Your task to perform on an android device: toggle improve location accuracy Image 0: 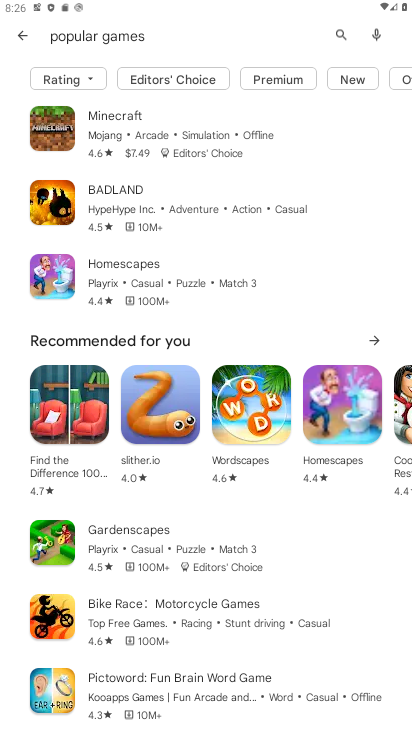
Step 0: press home button
Your task to perform on an android device: toggle improve location accuracy Image 1: 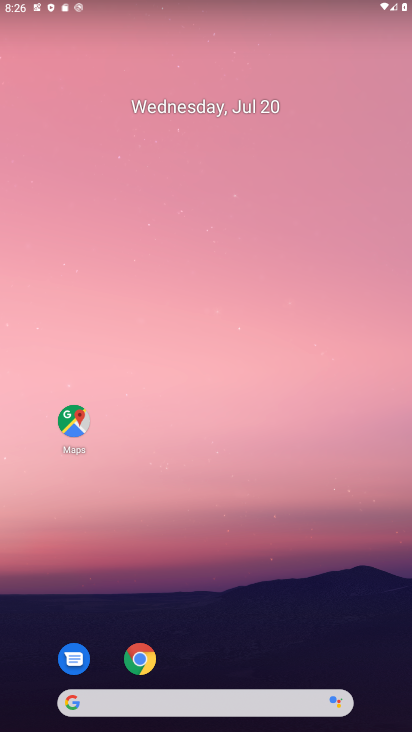
Step 1: drag from (322, 573) to (314, 29)
Your task to perform on an android device: toggle improve location accuracy Image 2: 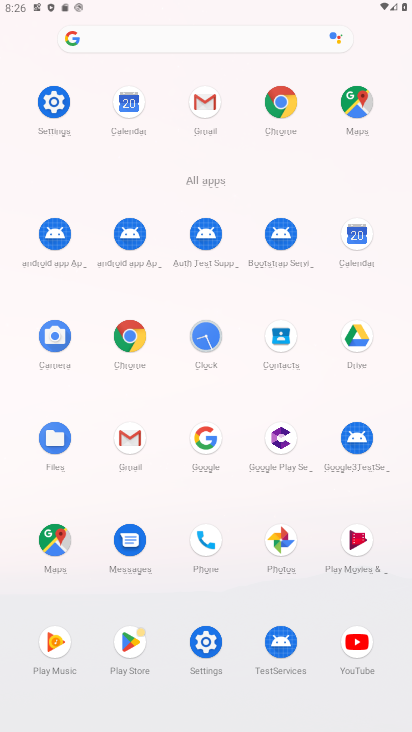
Step 2: click (208, 636)
Your task to perform on an android device: toggle improve location accuracy Image 3: 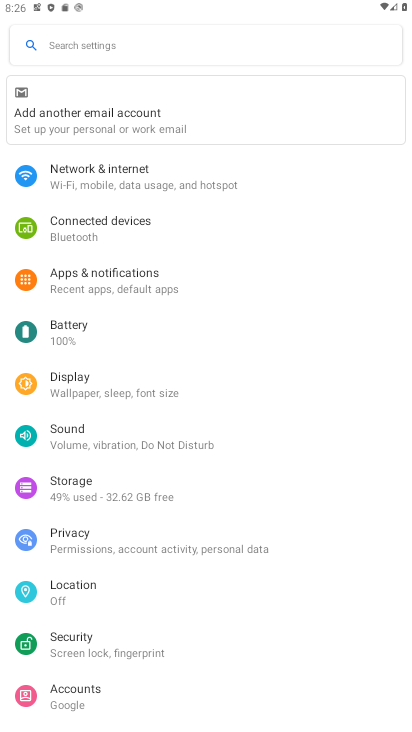
Step 3: click (86, 583)
Your task to perform on an android device: toggle improve location accuracy Image 4: 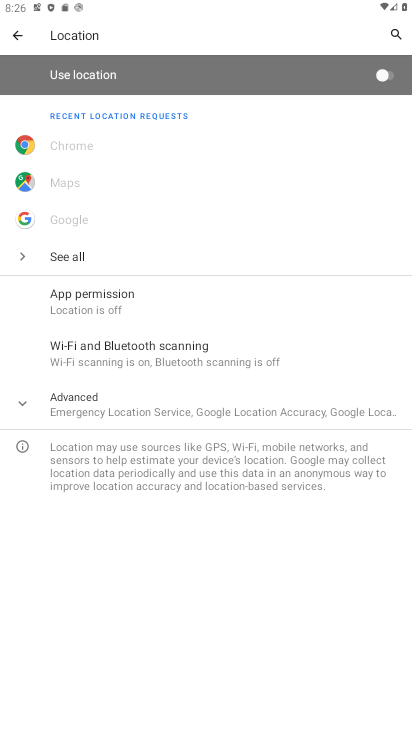
Step 4: click (142, 401)
Your task to perform on an android device: toggle improve location accuracy Image 5: 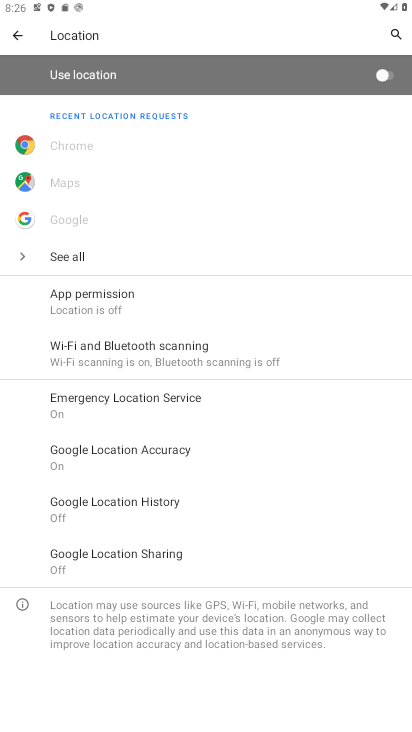
Step 5: click (153, 453)
Your task to perform on an android device: toggle improve location accuracy Image 6: 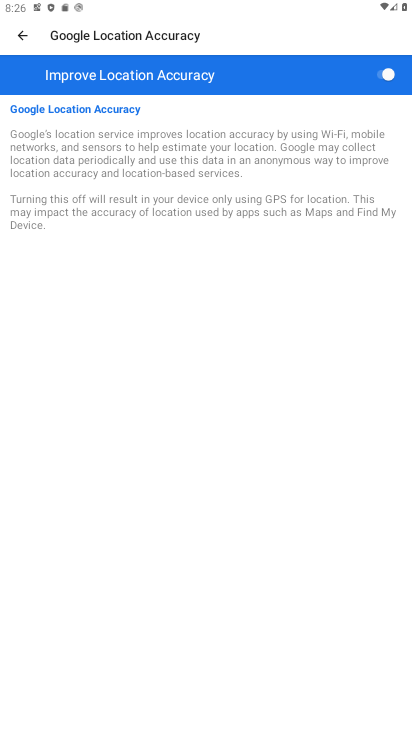
Step 6: click (323, 79)
Your task to perform on an android device: toggle improve location accuracy Image 7: 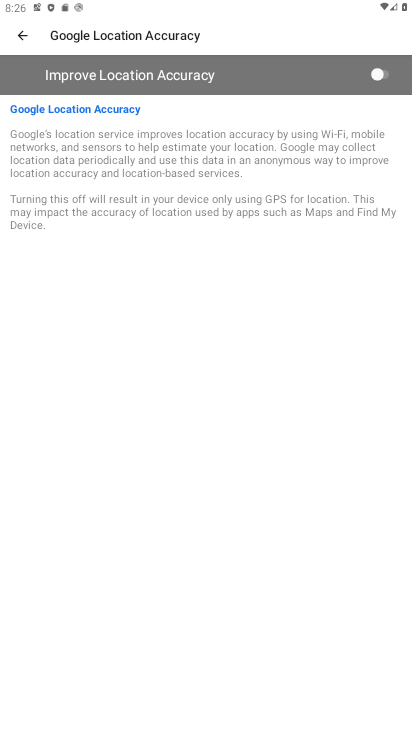
Step 7: task complete